Your task to perform on an android device: Open Amazon Image 0: 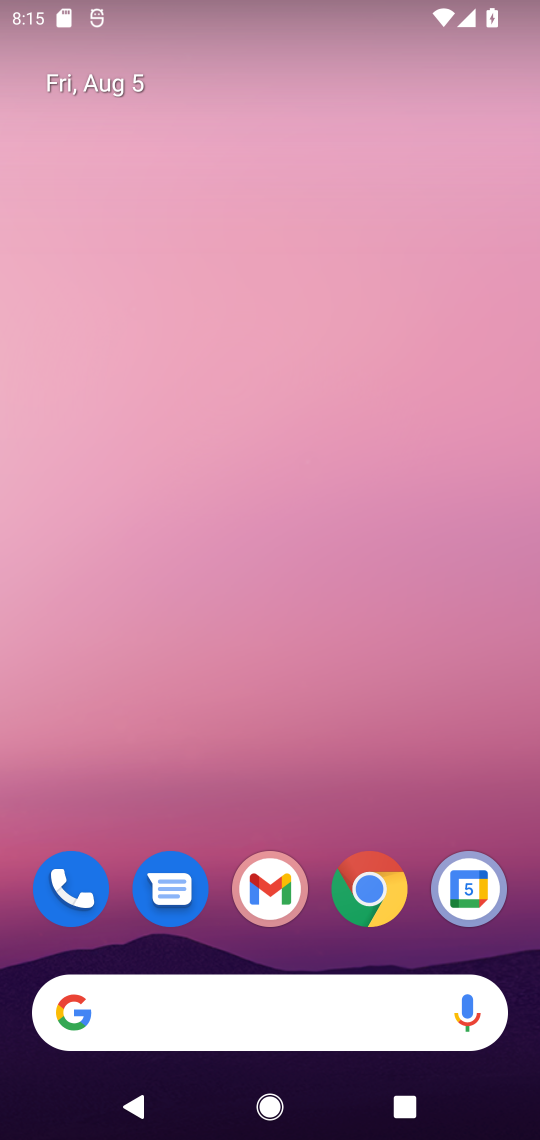
Step 0: drag from (305, 931) to (299, 311)
Your task to perform on an android device: Open Amazon Image 1: 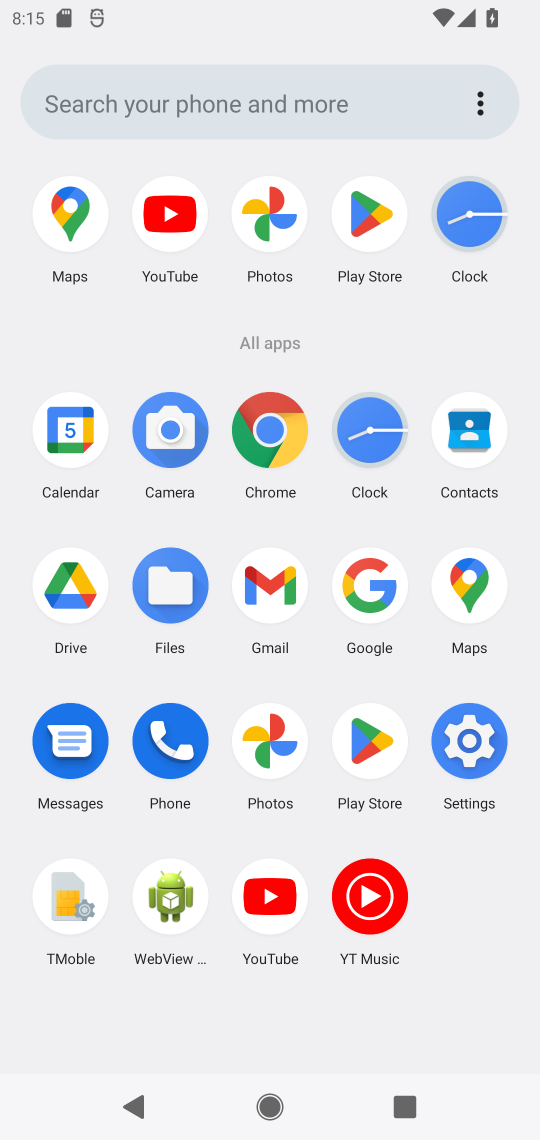
Step 1: click (285, 465)
Your task to perform on an android device: Open Amazon Image 2: 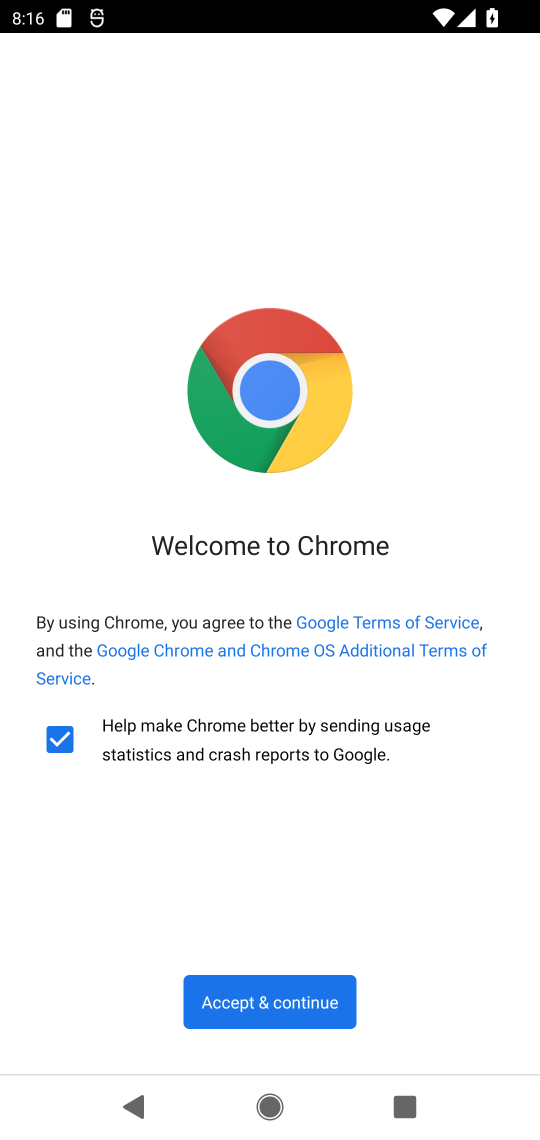
Step 2: click (261, 998)
Your task to perform on an android device: Open Amazon Image 3: 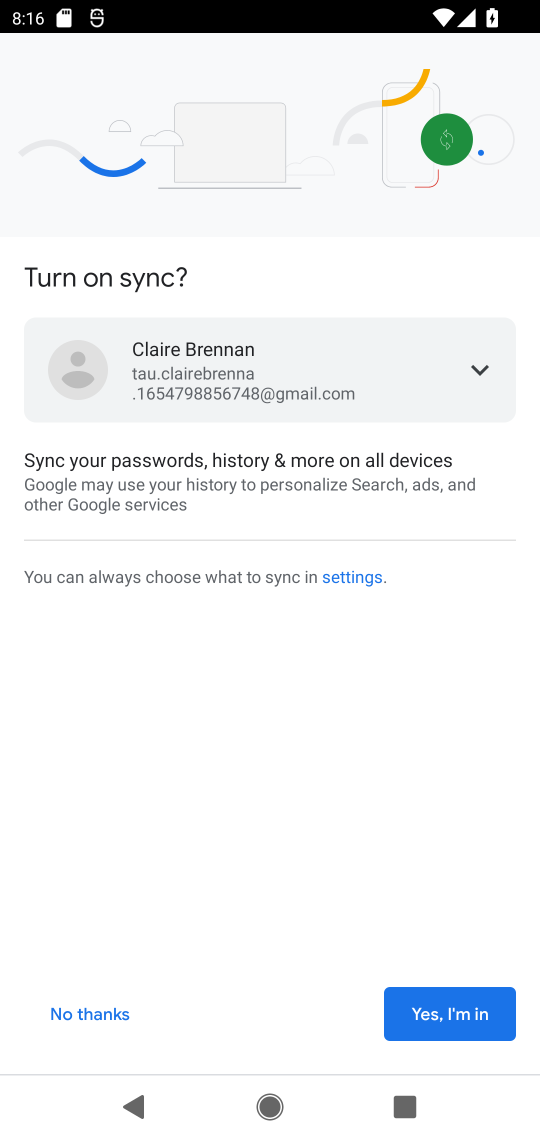
Step 3: click (435, 1002)
Your task to perform on an android device: Open Amazon Image 4: 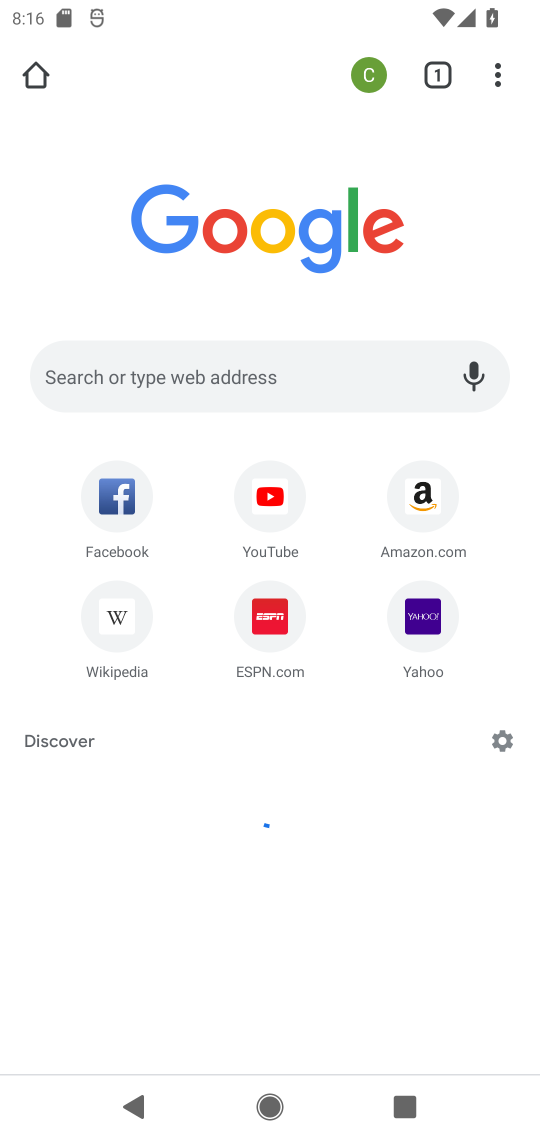
Step 4: click (417, 502)
Your task to perform on an android device: Open Amazon Image 5: 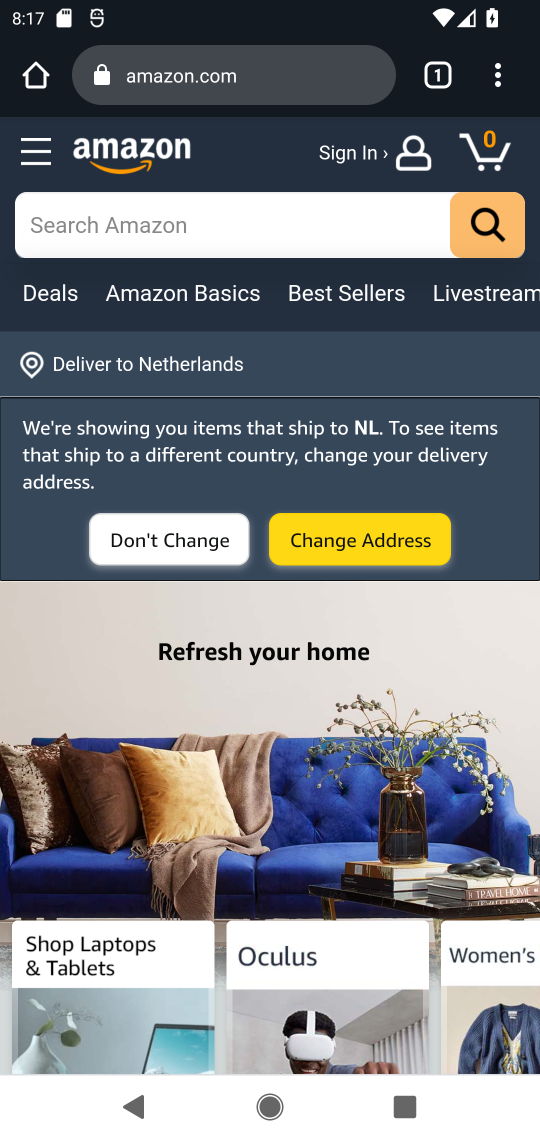
Step 5: task complete